Your task to perform on an android device: Go to Yahoo.com Image 0: 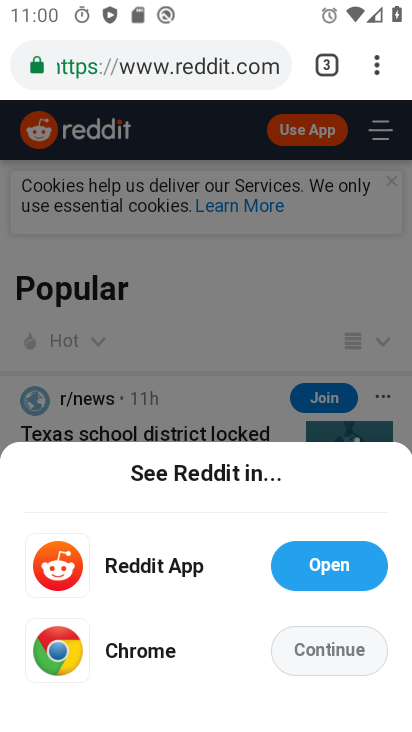
Step 0: press back button
Your task to perform on an android device: Go to Yahoo.com Image 1: 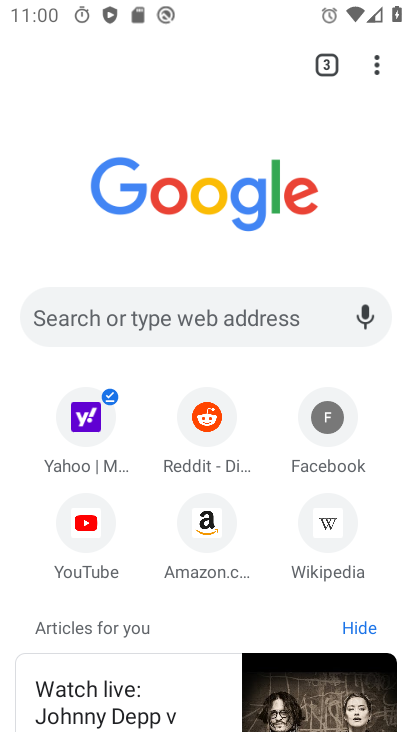
Step 1: click (94, 427)
Your task to perform on an android device: Go to Yahoo.com Image 2: 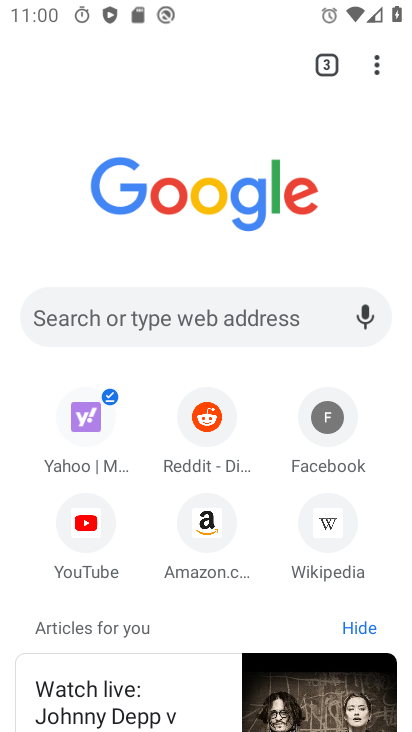
Step 2: click (94, 427)
Your task to perform on an android device: Go to Yahoo.com Image 3: 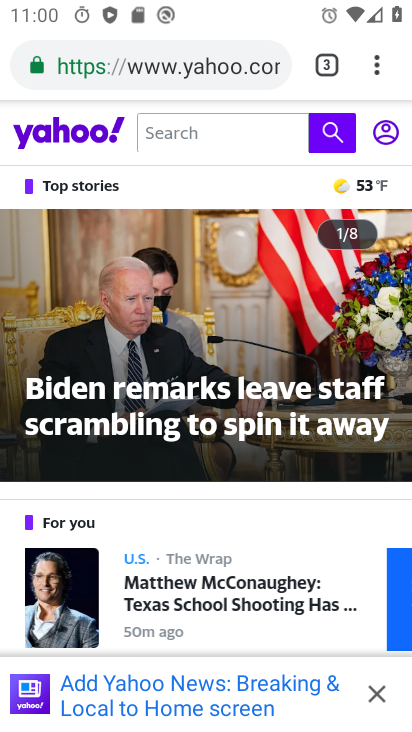
Step 3: task complete